Your task to perform on an android device: open app "Viber Messenger" (install if not already installed) Image 0: 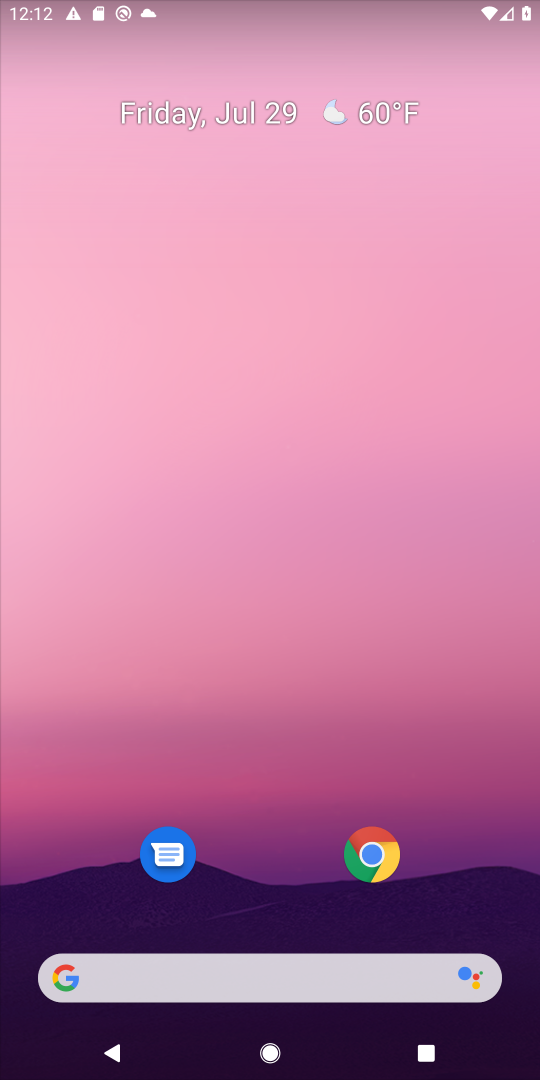
Step 0: drag from (255, 853) to (255, 35)
Your task to perform on an android device: open app "Viber Messenger" (install if not already installed) Image 1: 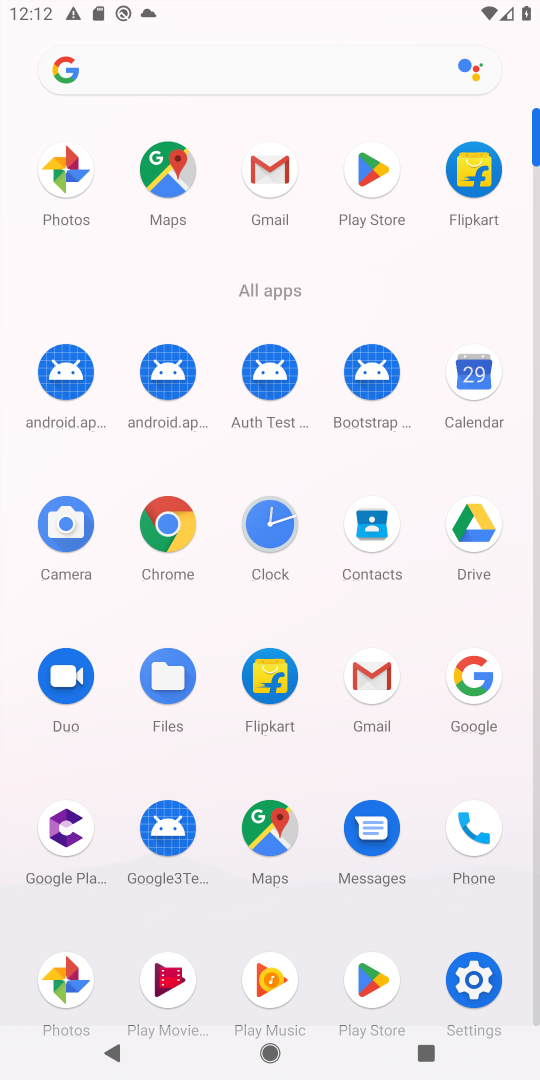
Step 1: click (379, 160)
Your task to perform on an android device: open app "Viber Messenger" (install if not already installed) Image 2: 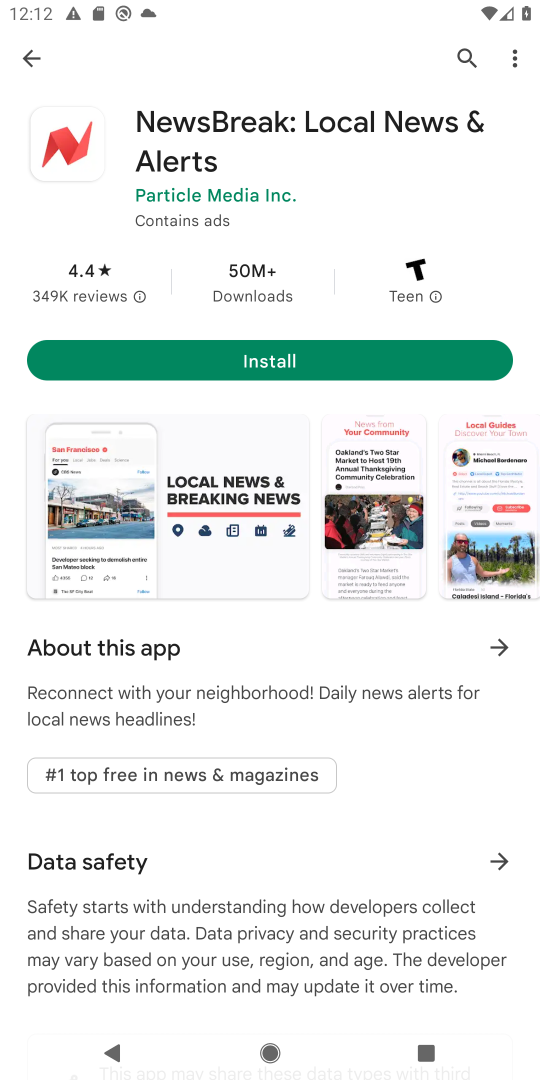
Step 2: click (469, 55)
Your task to perform on an android device: open app "Viber Messenger" (install if not already installed) Image 3: 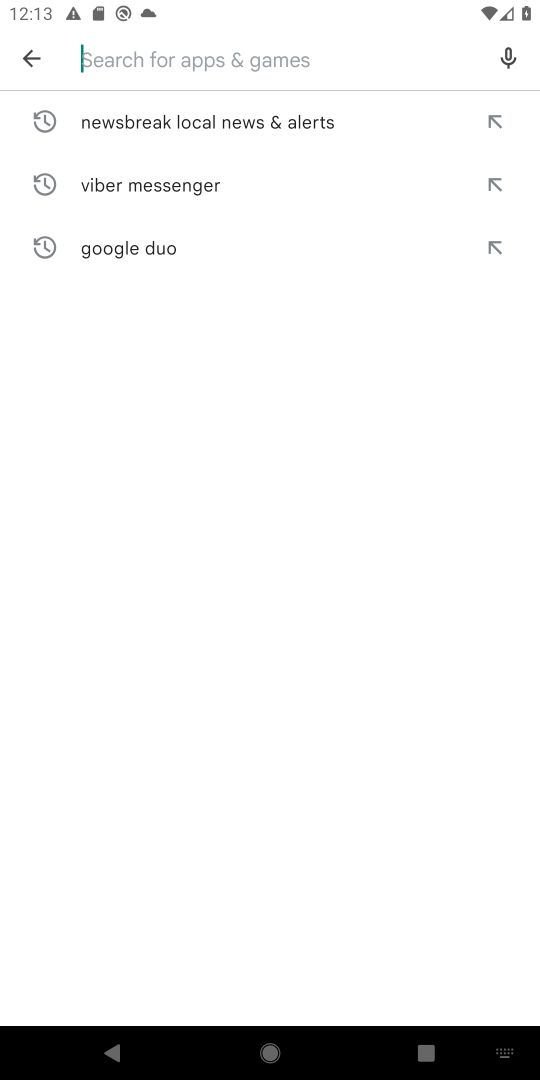
Step 3: type "viber messenger"
Your task to perform on an android device: open app "Viber Messenger" (install if not already installed) Image 4: 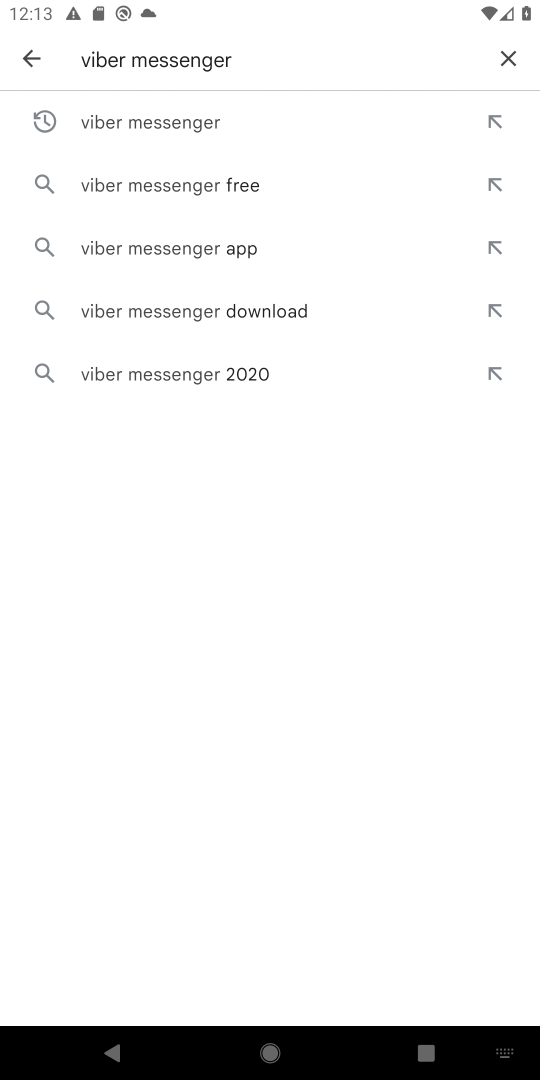
Step 4: click (154, 118)
Your task to perform on an android device: open app "Viber Messenger" (install if not already installed) Image 5: 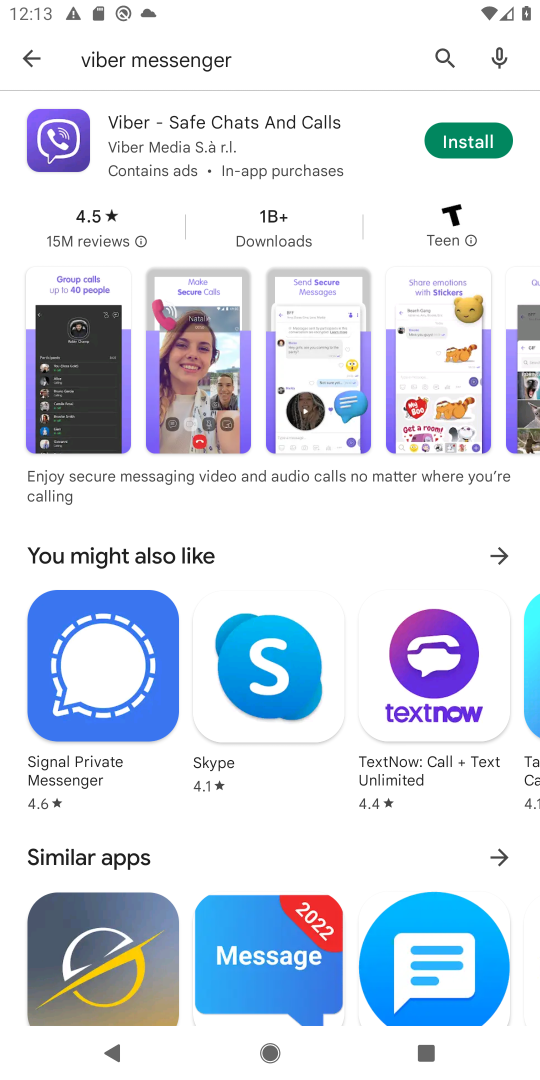
Step 5: click (226, 132)
Your task to perform on an android device: open app "Viber Messenger" (install if not already installed) Image 6: 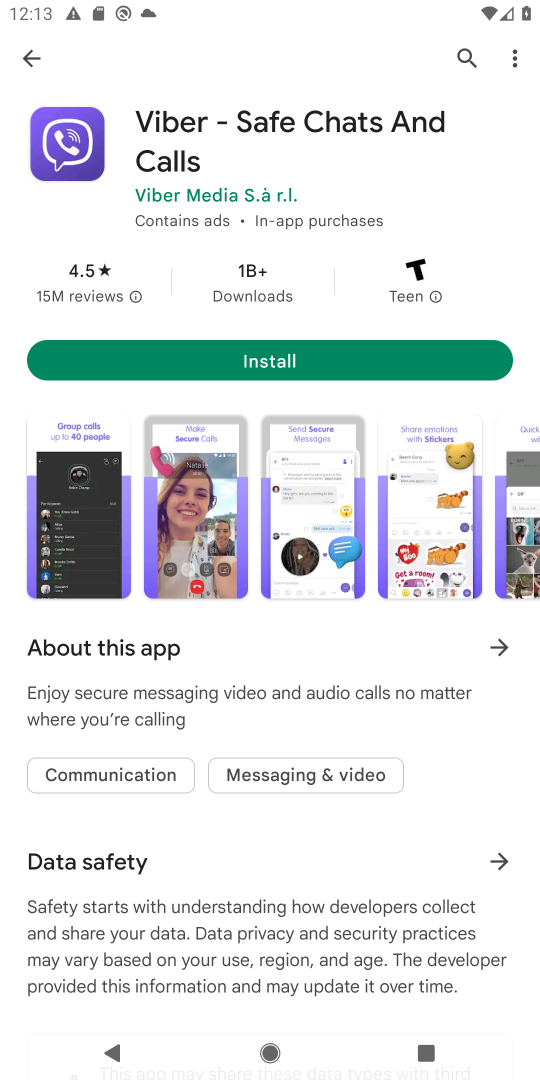
Step 6: click (417, 362)
Your task to perform on an android device: open app "Viber Messenger" (install if not already installed) Image 7: 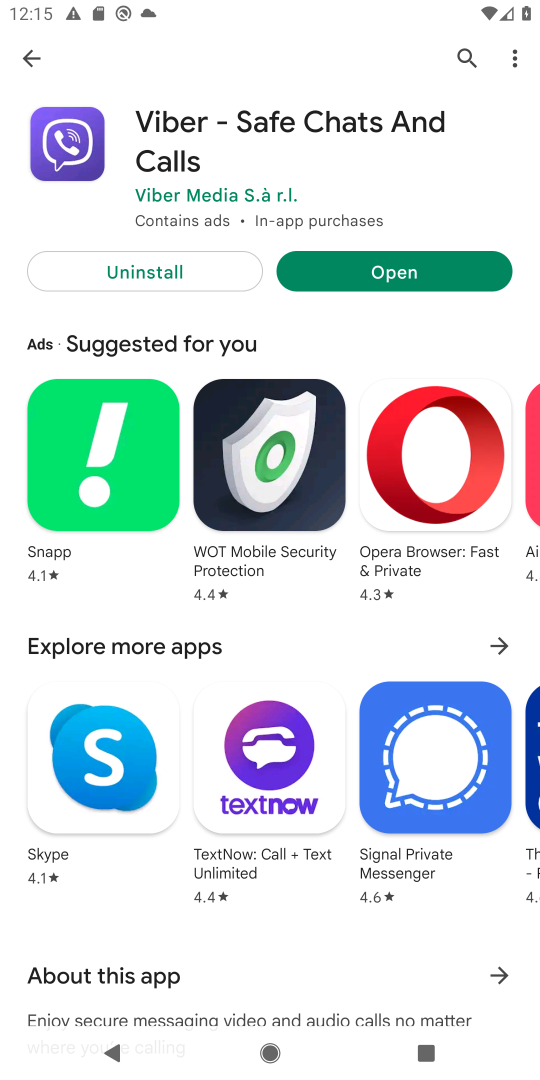
Step 7: click (462, 283)
Your task to perform on an android device: open app "Viber Messenger" (install if not already installed) Image 8: 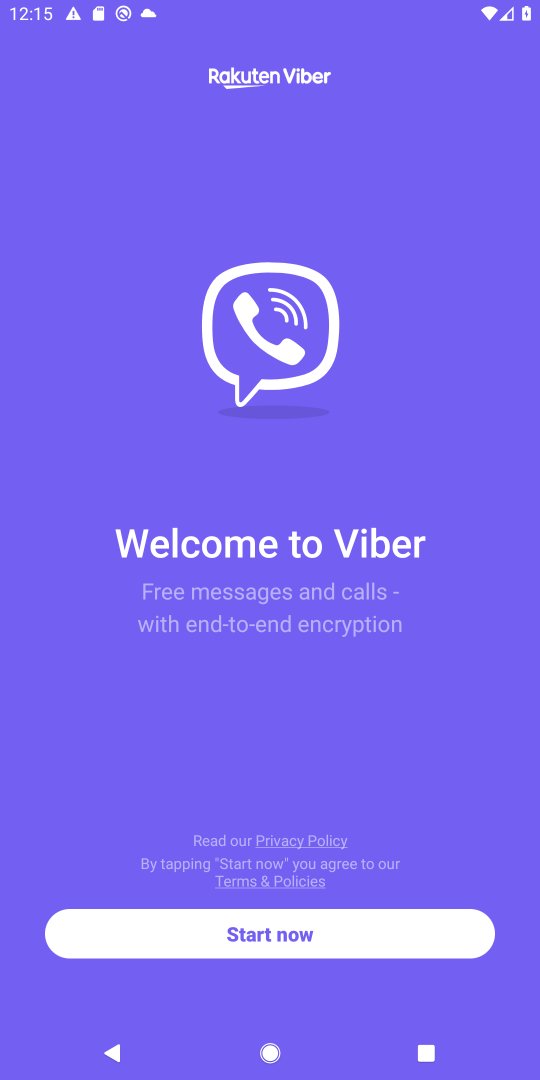
Step 8: task complete